Your task to perform on an android device: open a bookmark in the chrome app Image 0: 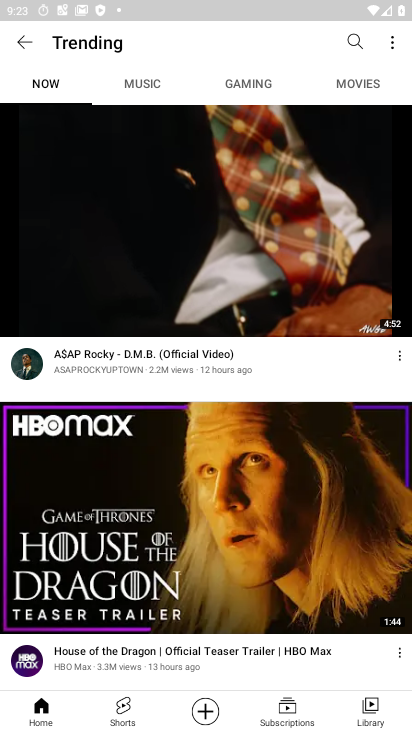
Step 0: press home button
Your task to perform on an android device: open a bookmark in the chrome app Image 1: 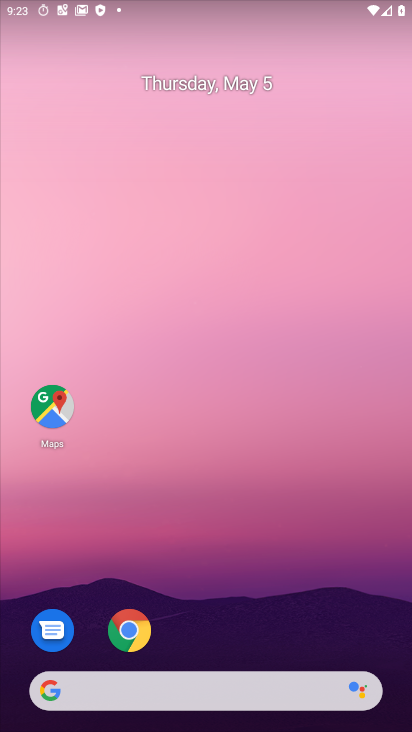
Step 1: click (122, 630)
Your task to perform on an android device: open a bookmark in the chrome app Image 2: 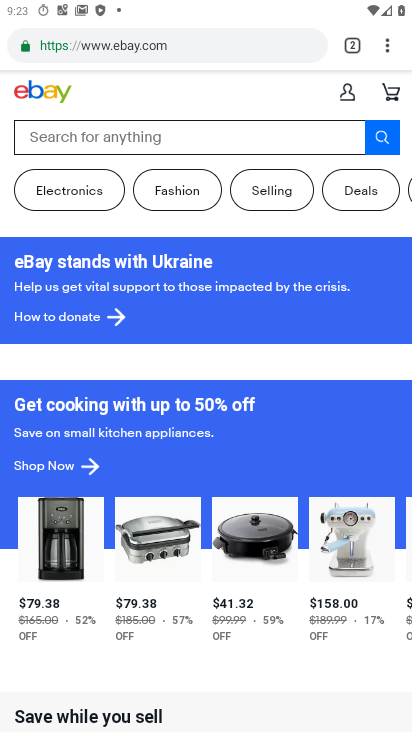
Step 2: task complete